Your task to perform on an android device: turn on showing notifications on the lock screen Image 0: 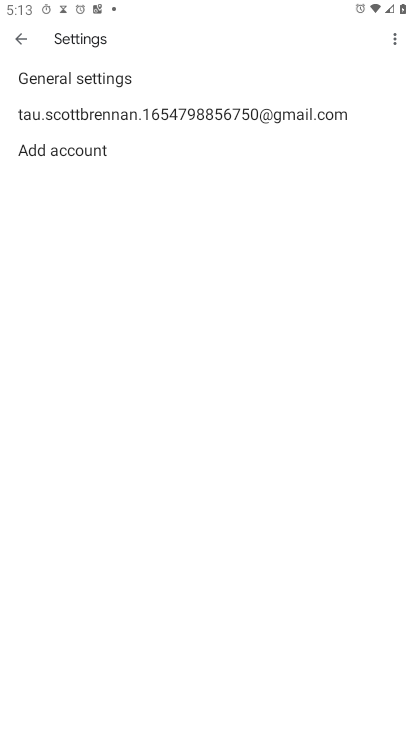
Step 0: press home button
Your task to perform on an android device: turn on showing notifications on the lock screen Image 1: 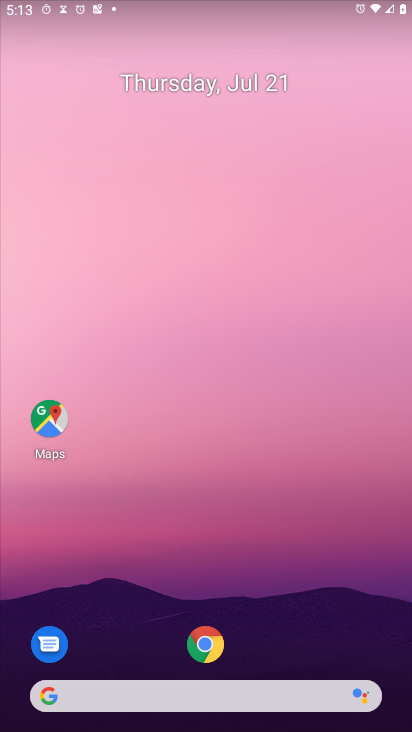
Step 1: drag from (344, 599) to (346, 5)
Your task to perform on an android device: turn on showing notifications on the lock screen Image 2: 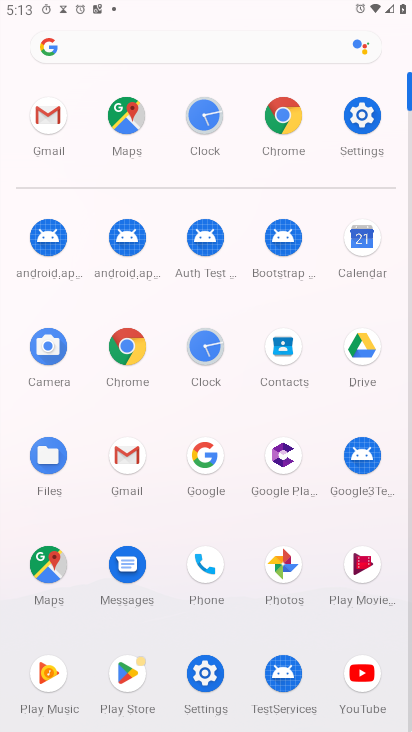
Step 2: click (357, 113)
Your task to perform on an android device: turn on showing notifications on the lock screen Image 3: 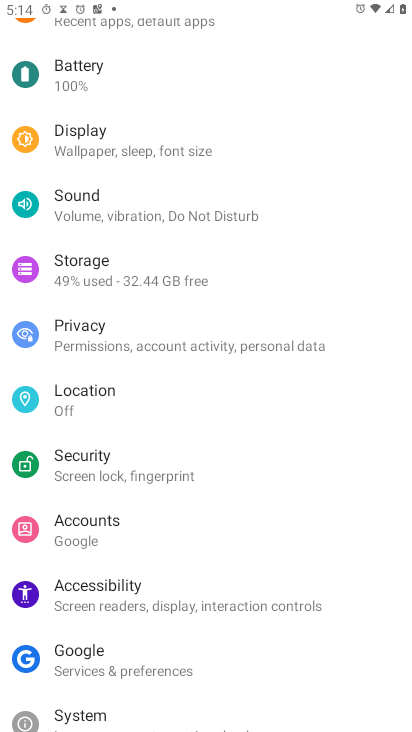
Step 3: drag from (118, 43) to (136, 372)
Your task to perform on an android device: turn on showing notifications on the lock screen Image 4: 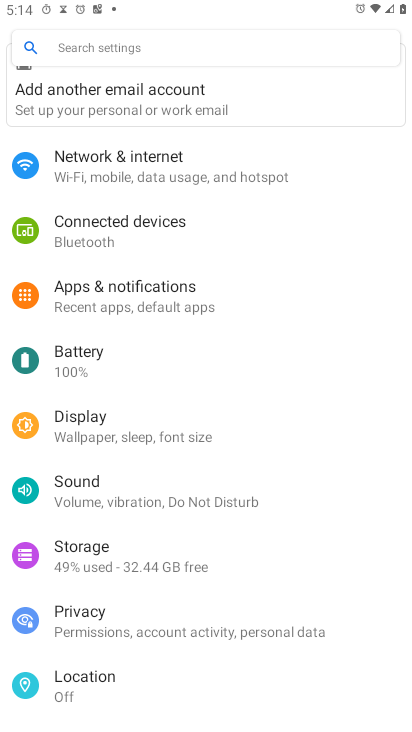
Step 4: click (106, 295)
Your task to perform on an android device: turn on showing notifications on the lock screen Image 5: 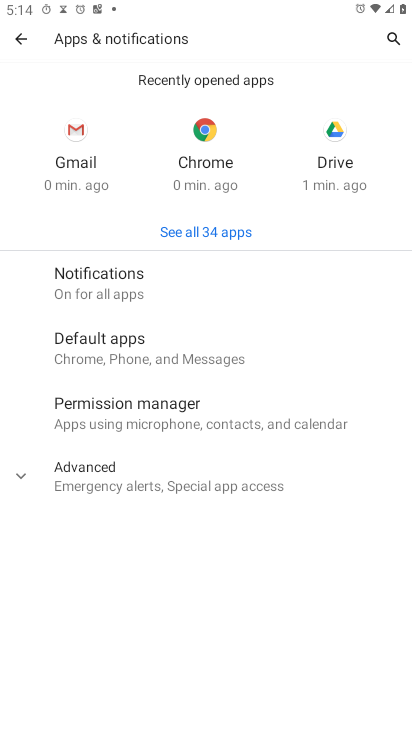
Step 5: click (124, 283)
Your task to perform on an android device: turn on showing notifications on the lock screen Image 6: 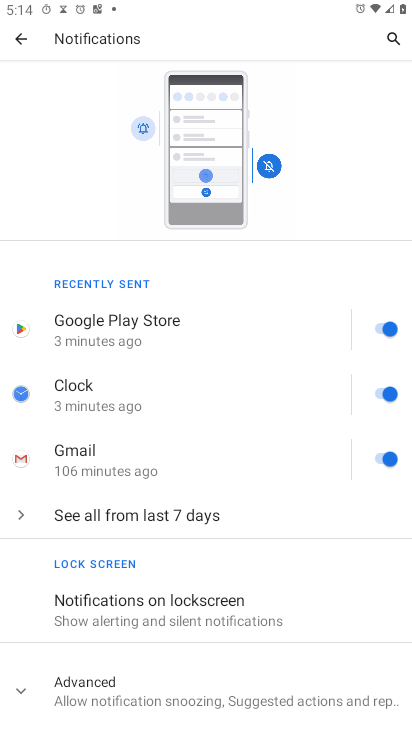
Step 6: click (174, 613)
Your task to perform on an android device: turn on showing notifications on the lock screen Image 7: 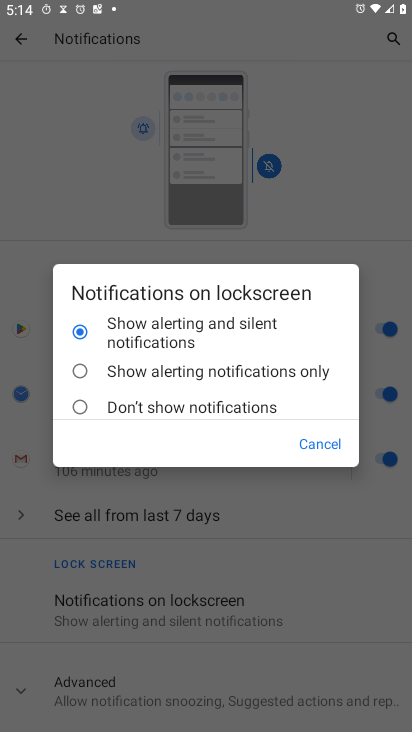
Step 7: task complete